Your task to perform on an android device: Go to Amazon Image 0: 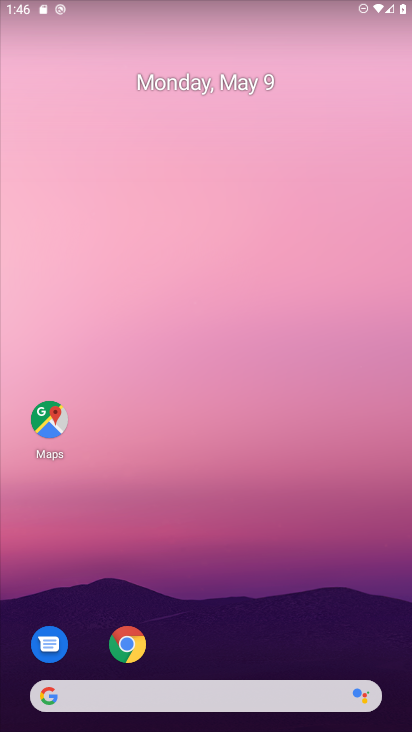
Step 0: click (120, 660)
Your task to perform on an android device: Go to Amazon Image 1: 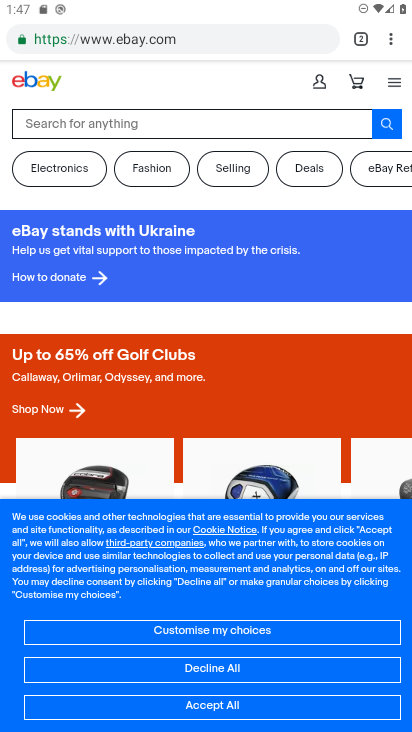
Step 1: click (165, 38)
Your task to perform on an android device: Go to Amazon Image 2: 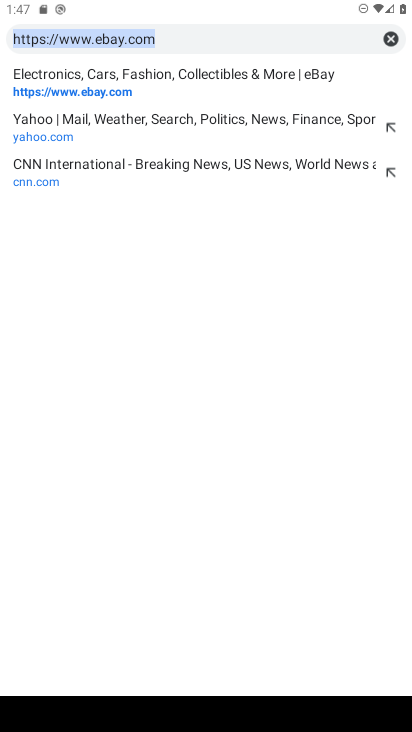
Step 2: type "www.amazon.com"
Your task to perform on an android device: Go to Amazon Image 3: 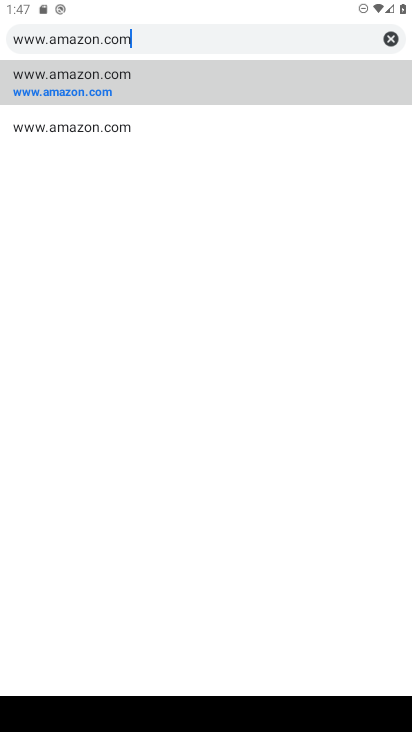
Step 3: click (73, 97)
Your task to perform on an android device: Go to Amazon Image 4: 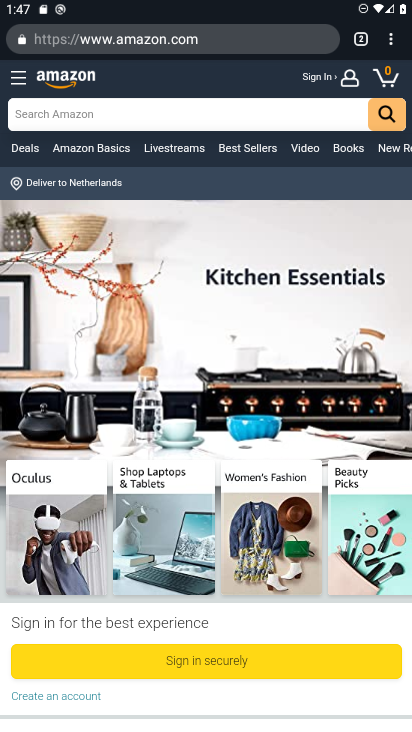
Step 4: task complete